Your task to perform on an android device: Turn off the flashlight Image 0: 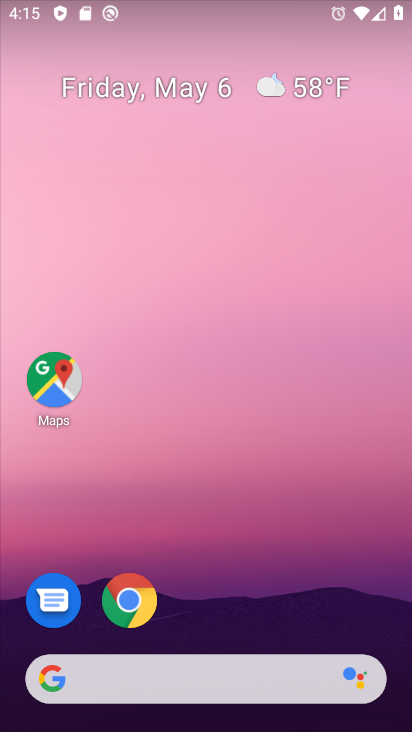
Step 0: drag from (214, 600) to (249, 81)
Your task to perform on an android device: Turn off the flashlight Image 1: 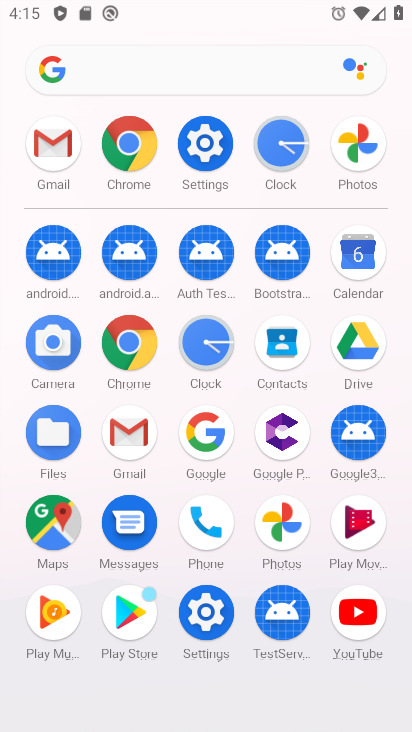
Step 1: click (216, 151)
Your task to perform on an android device: Turn off the flashlight Image 2: 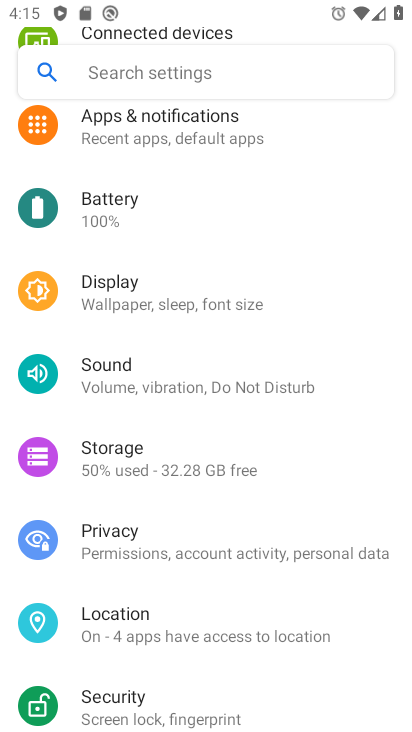
Step 2: click (270, 79)
Your task to perform on an android device: Turn off the flashlight Image 3: 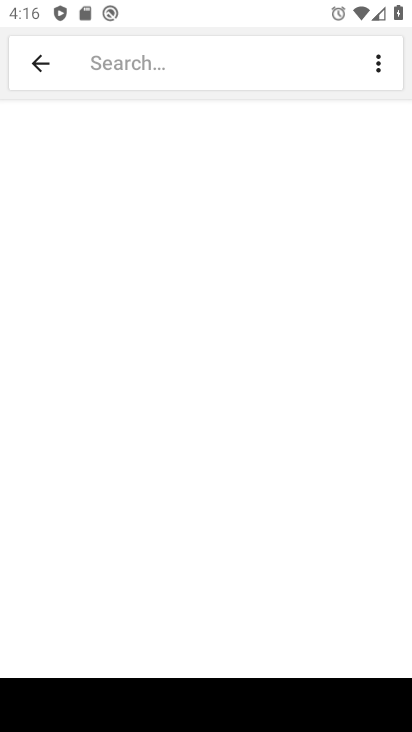
Step 3: type "flashlight"
Your task to perform on an android device: Turn off the flashlight Image 4: 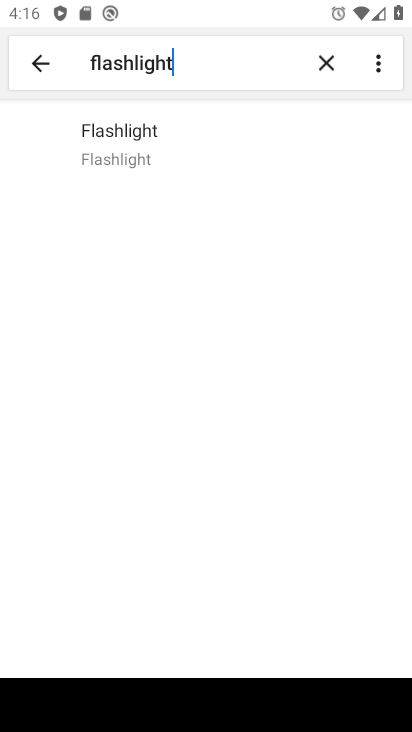
Step 4: click (90, 149)
Your task to perform on an android device: Turn off the flashlight Image 5: 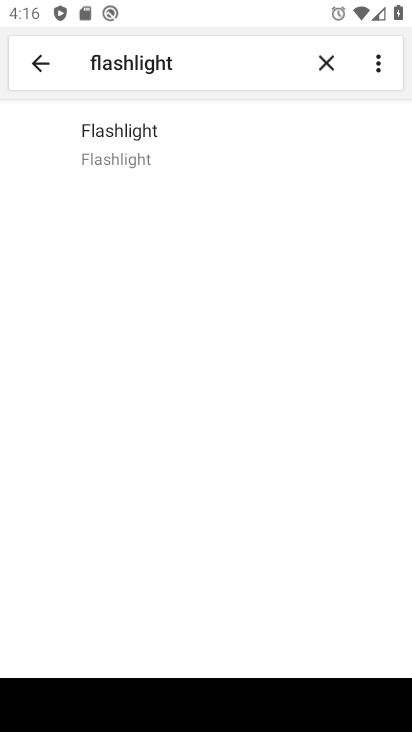
Step 5: click (98, 145)
Your task to perform on an android device: Turn off the flashlight Image 6: 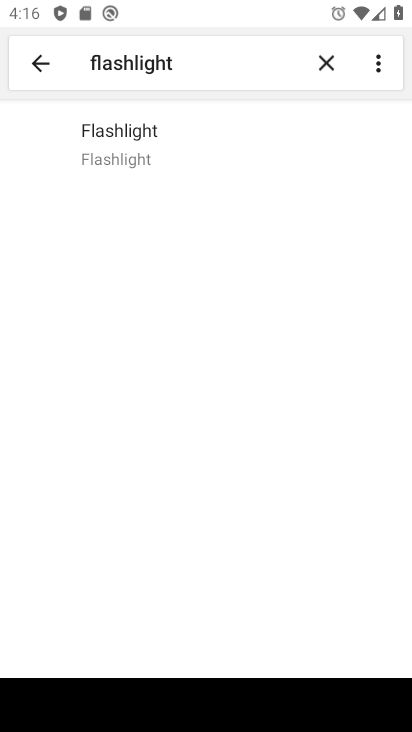
Step 6: task complete